Your task to perform on an android device: change notifications settings Image 0: 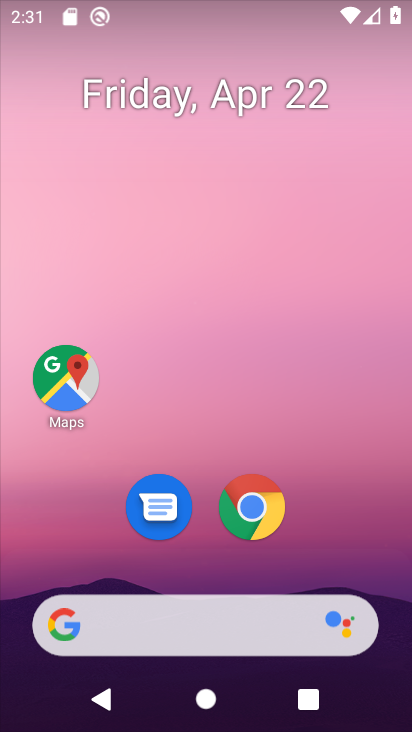
Step 0: drag from (184, 570) to (359, 34)
Your task to perform on an android device: change notifications settings Image 1: 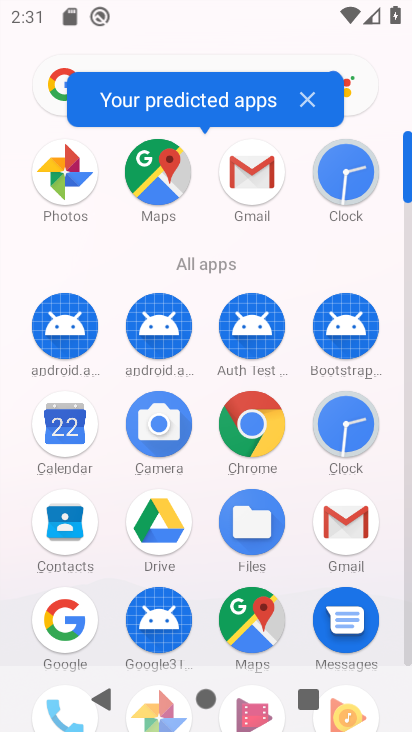
Step 1: drag from (218, 575) to (260, 309)
Your task to perform on an android device: change notifications settings Image 2: 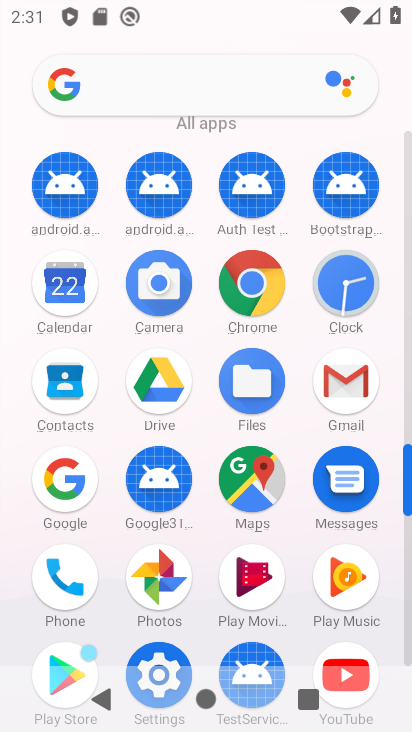
Step 2: click (160, 662)
Your task to perform on an android device: change notifications settings Image 3: 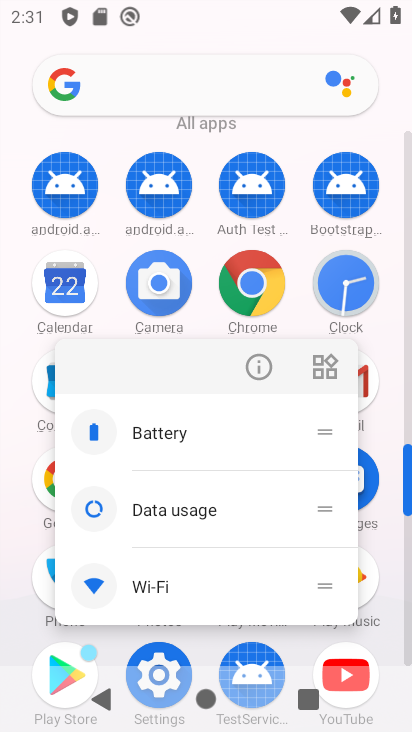
Step 3: click (158, 663)
Your task to perform on an android device: change notifications settings Image 4: 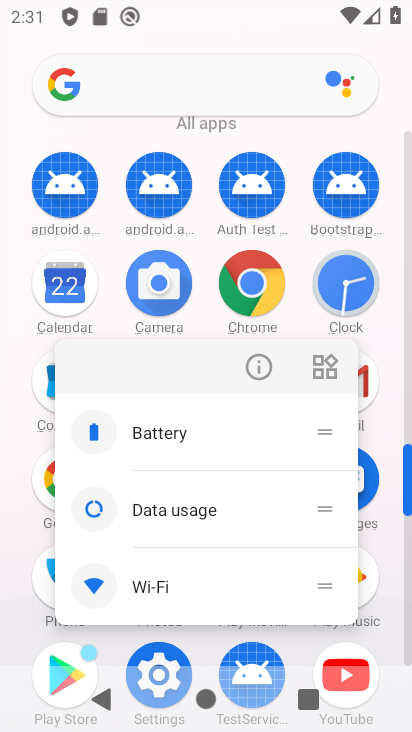
Step 4: click (157, 663)
Your task to perform on an android device: change notifications settings Image 5: 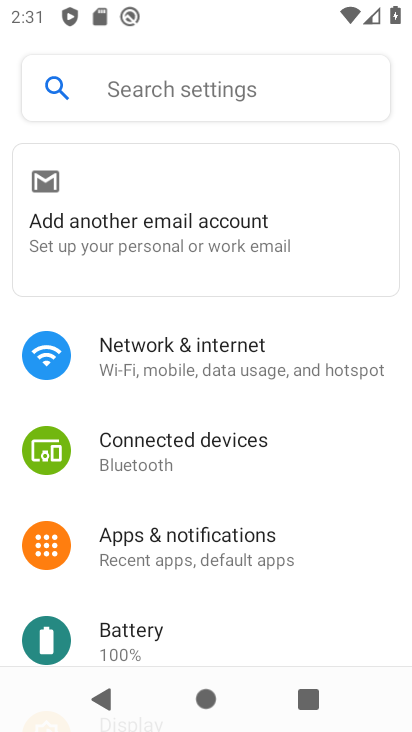
Step 5: click (213, 551)
Your task to perform on an android device: change notifications settings Image 6: 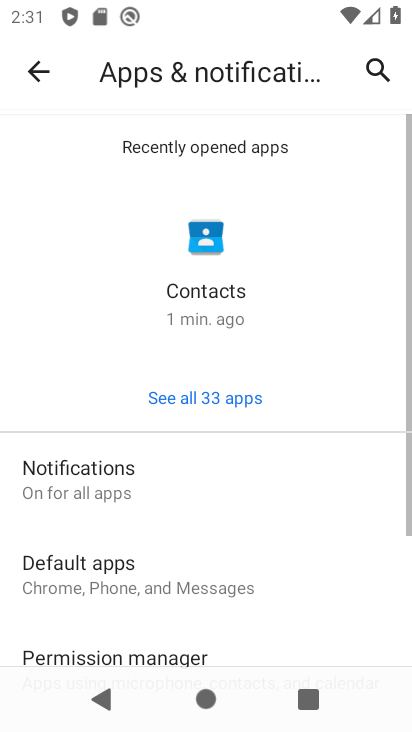
Step 6: drag from (202, 511) to (328, 228)
Your task to perform on an android device: change notifications settings Image 7: 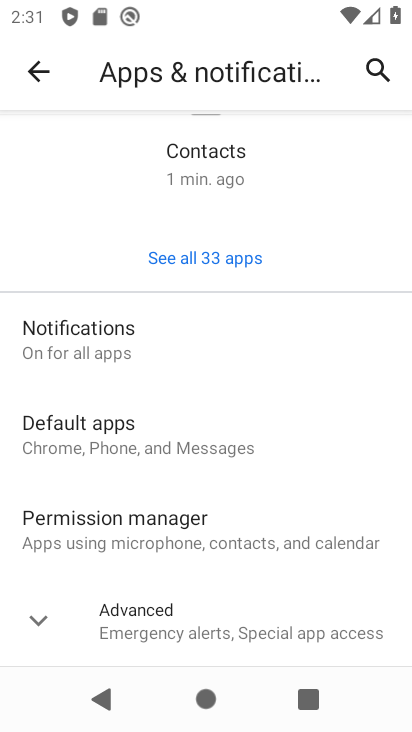
Step 7: click (201, 335)
Your task to perform on an android device: change notifications settings Image 8: 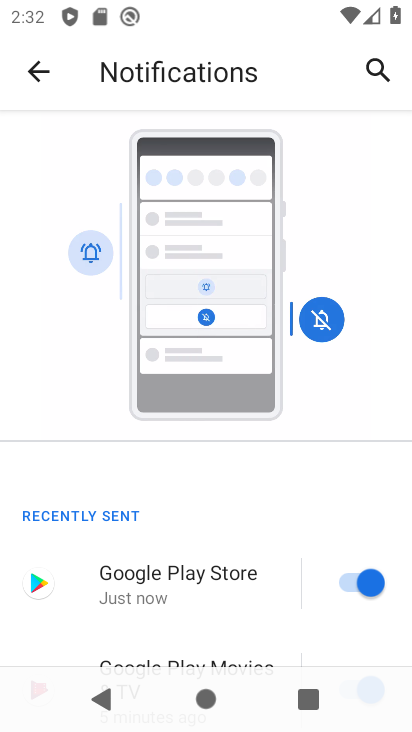
Step 8: drag from (121, 646) to (337, 66)
Your task to perform on an android device: change notifications settings Image 9: 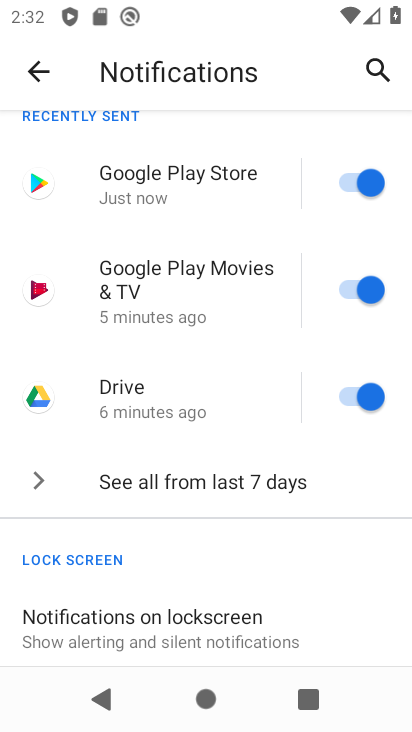
Step 9: drag from (182, 540) to (279, 260)
Your task to perform on an android device: change notifications settings Image 10: 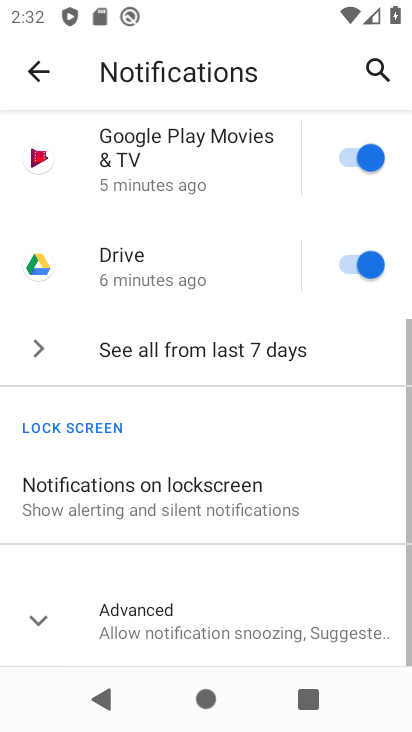
Step 10: click (188, 606)
Your task to perform on an android device: change notifications settings Image 11: 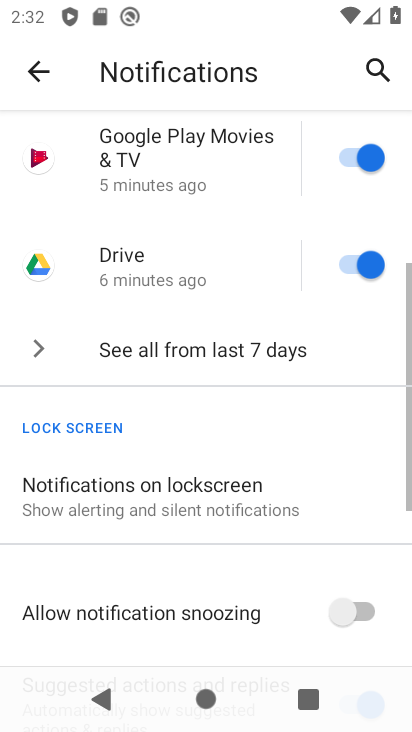
Step 11: drag from (204, 521) to (284, 330)
Your task to perform on an android device: change notifications settings Image 12: 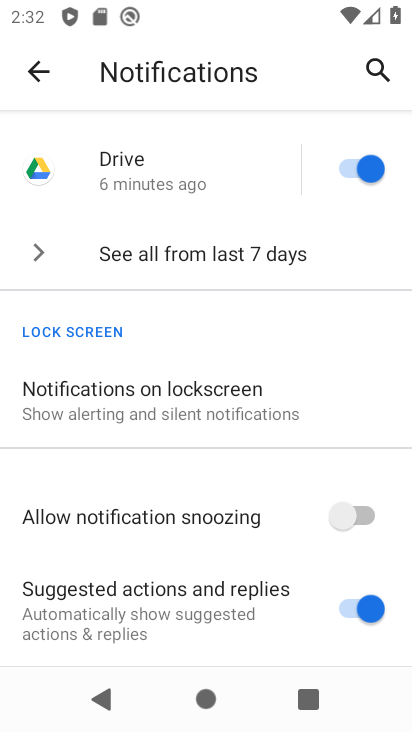
Step 12: click (368, 510)
Your task to perform on an android device: change notifications settings Image 13: 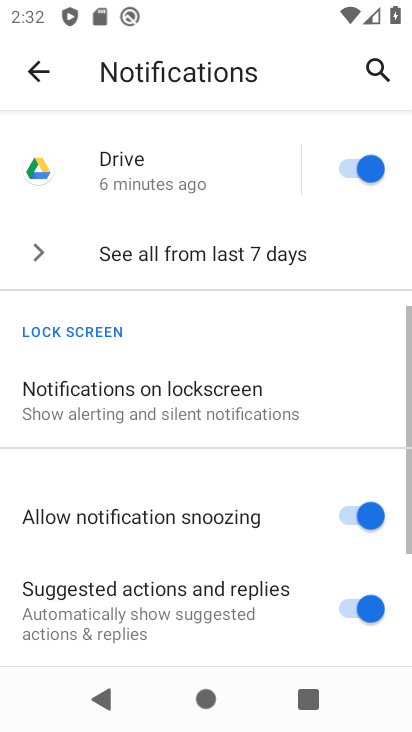
Step 13: click (353, 614)
Your task to perform on an android device: change notifications settings Image 14: 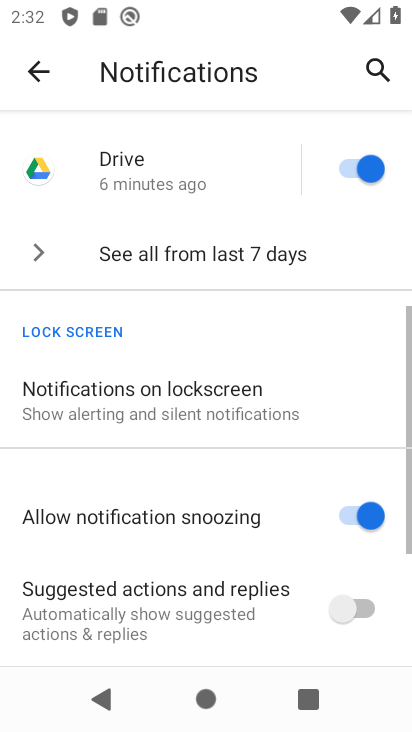
Step 14: drag from (177, 637) to (230, 370)
Your task to perform on an android device: change notifications settings Image 15: 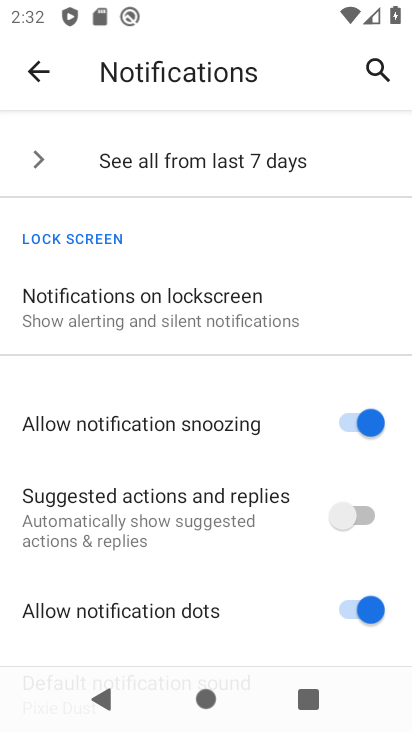
Step 15: click (345, 610)
Your task to perform on an android device: change notifications settings Image 16: 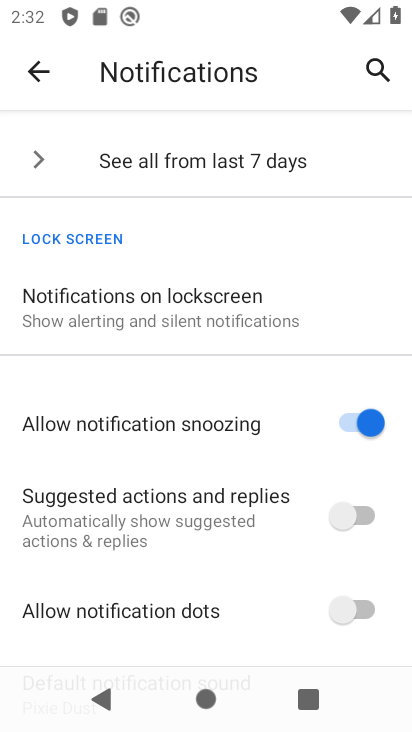
Step 16: drag from (110, 564) to (232, 345)
Your task to perform on an android device: change notifications settings Image 17: 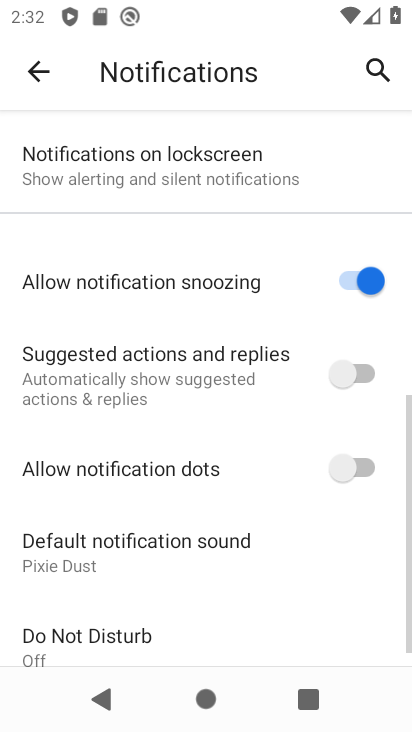
Step 17: click (180, 565)
Your task to perform on an android device: change notifications settings Image 18: 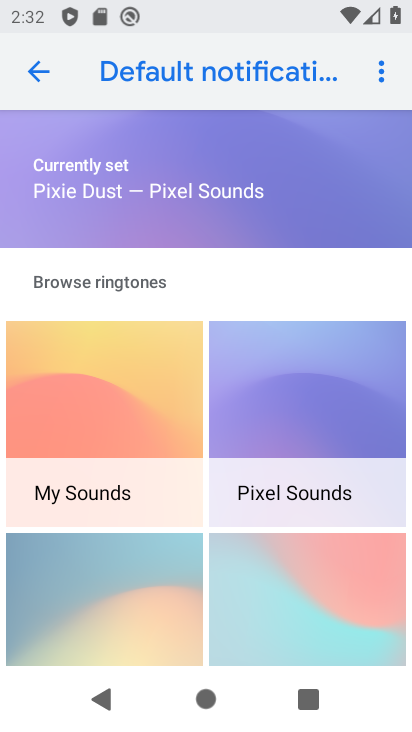
Step 18: click (112, 605)
Your task to perform on an android device: change notifications settings Image 19: 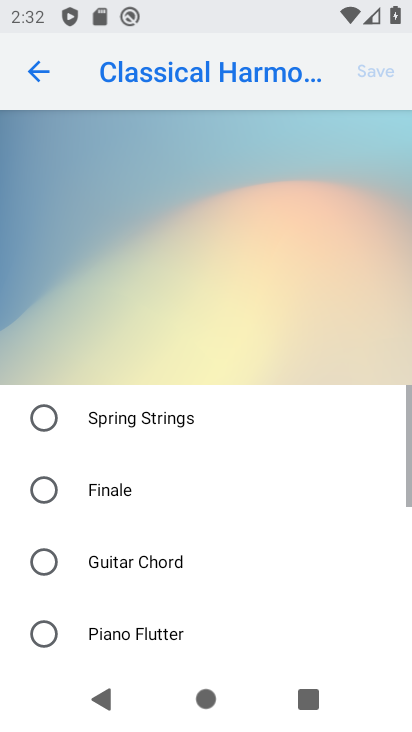
Step 19: click (160, 574)
Your task to perform on an android device: change notifications settings Image 20: 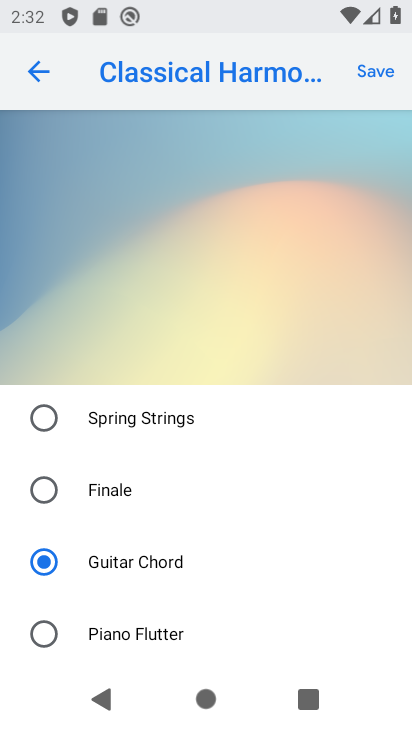
Step 20: click (360, 73)
Your task to perform on an android device: change notifications settings Image 21: 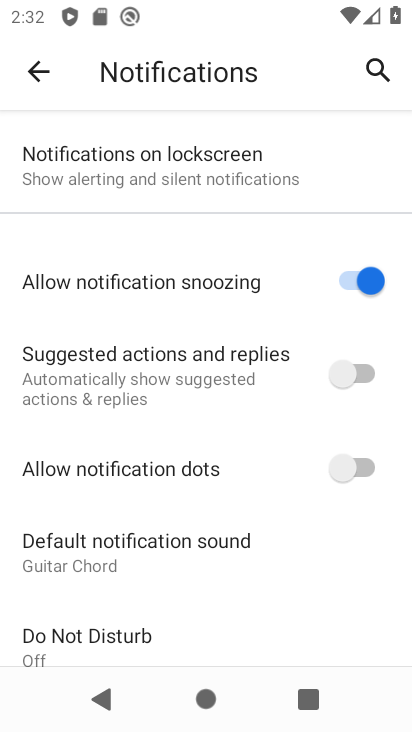
Step 21: click (357, 279)
Your task to perform on an android device: change notifications settings Image 22: 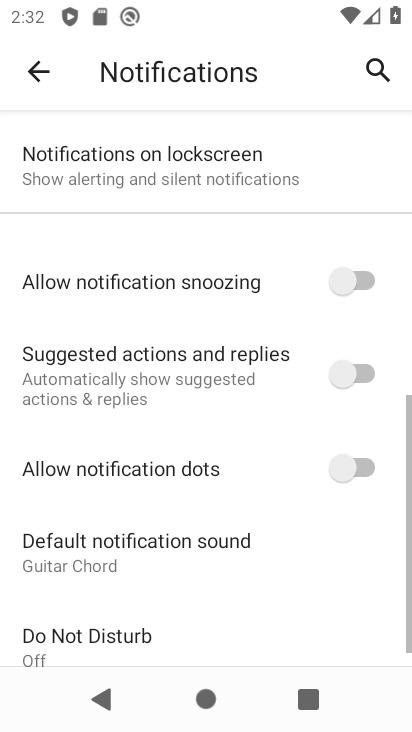
Step 22: task complete